Your task to perform on an android device: change your default location settings in chrome Image 0: 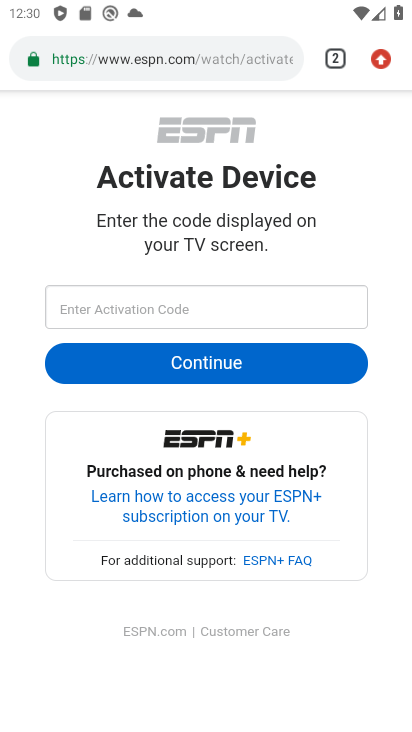
Step 0: drag from (377, 77) to (274, 623)
Your task to perform on an android device: change your default location settings in chrome Image 1: 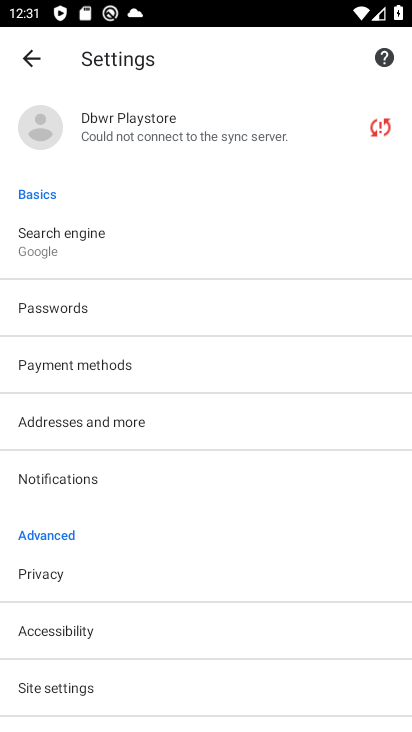
Step 1: drag from (265, 624) to (222, 340)
Your task to perform on an android device: change your default location settings in chrome Image 2: 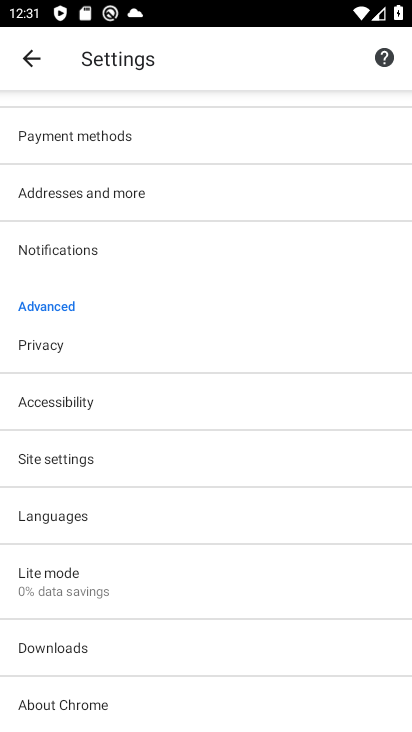
Step 2: click (171, 472)
Your task to perform on an android device: change your default location settings in chrome Image 3: 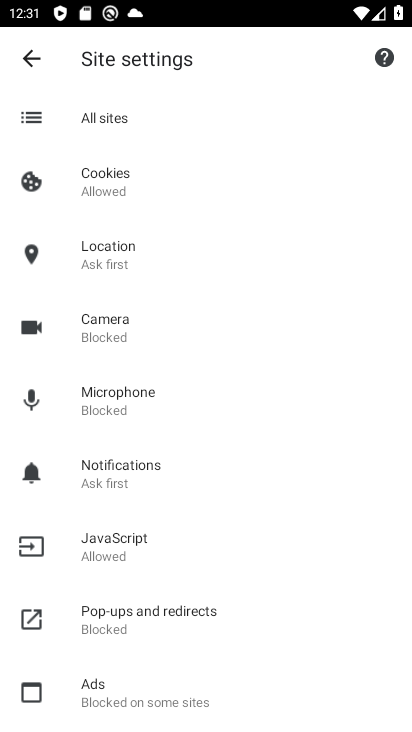
Step 3: click (155, 253)
Your task to perform on an android device: change your default location settings in chrome Image 4: 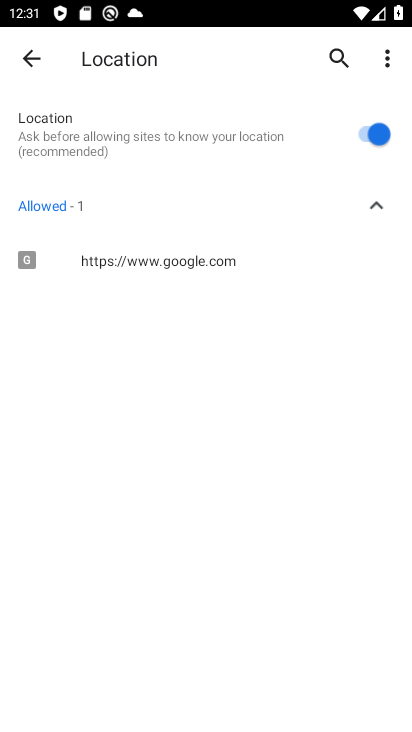
Step 4: task complete